Your task to perform on an android device: Add razer thresher to the cart on amazon, then select checkout. Image 0: 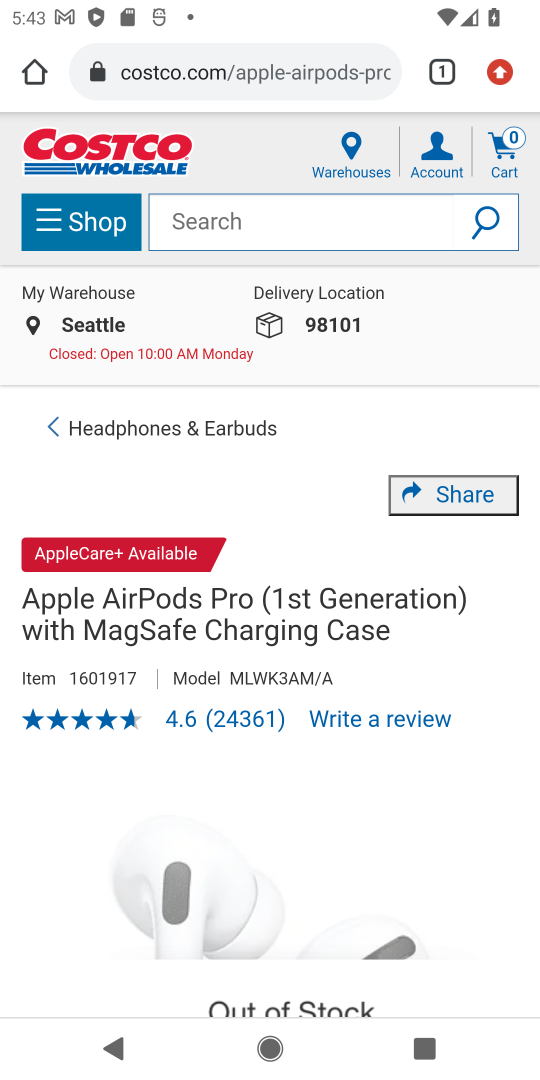
Step 0: press home button
Your task to perform on an android device: Add razer thresher to the cart on amazon, then select checkout. Image 1: 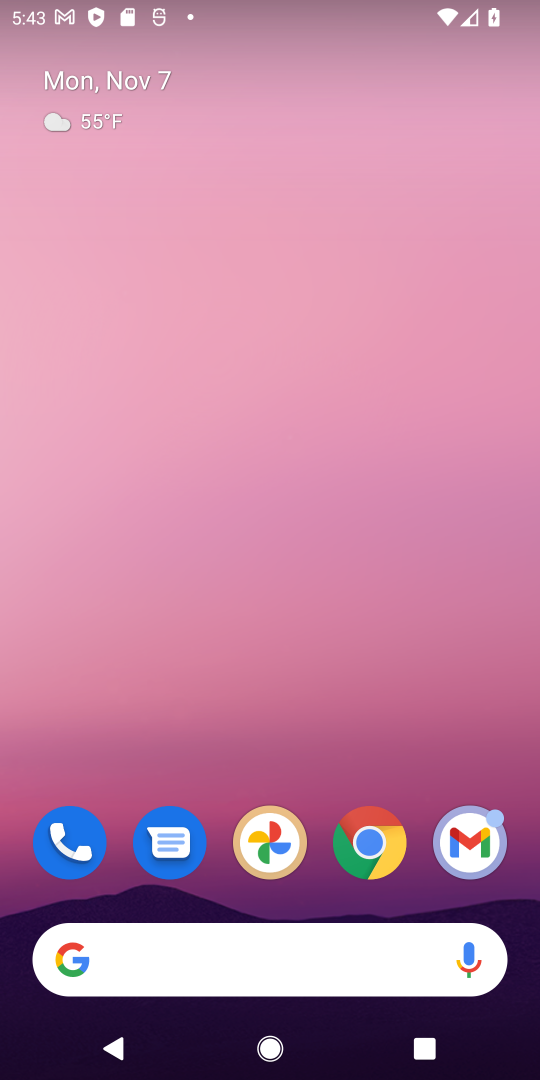
Step 1: click (373, 845)
Your task to perform on an android device: Add razer thresher to the cart on amazon, then select checkout. Image 2: 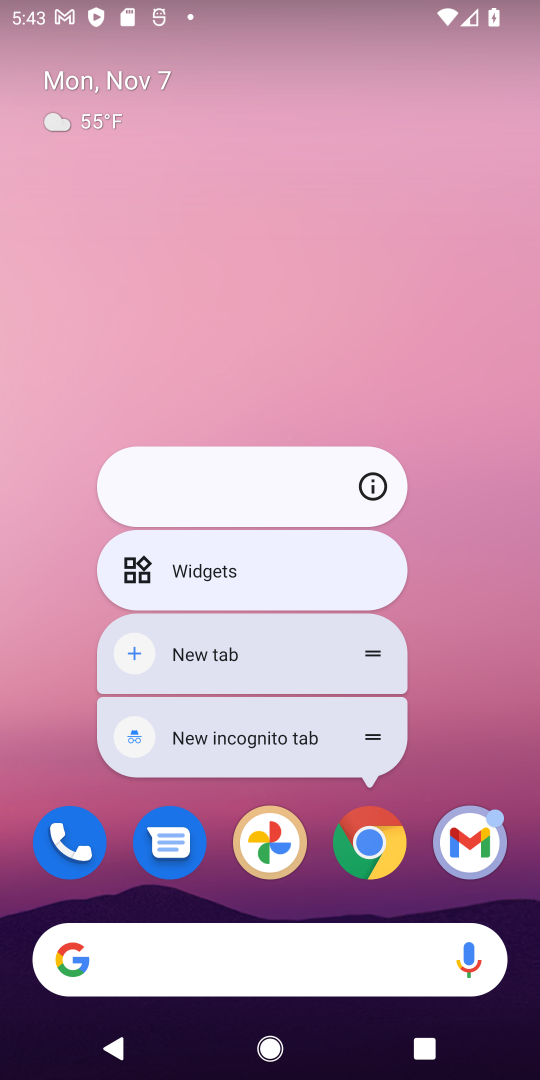
Step 2: click (373, 845)
Your task to perform on an android device: Add razer thresher to the cart on amazon, then select checkout. Image 3: 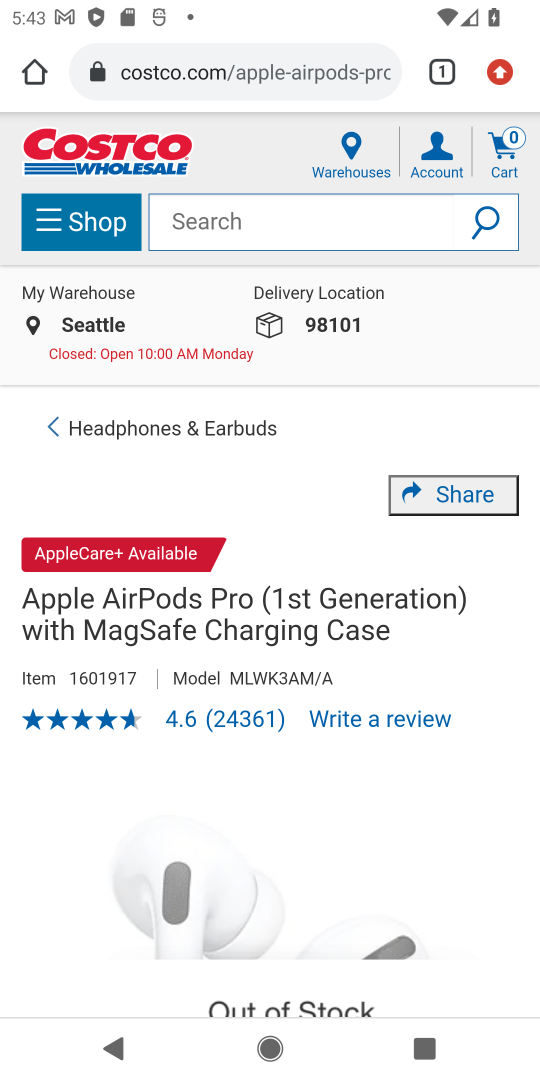
Step 3: click (272, 68)
Your task to perform on an android device: Add razer thresher to the cart on amazon, then select checkout. Image 4: 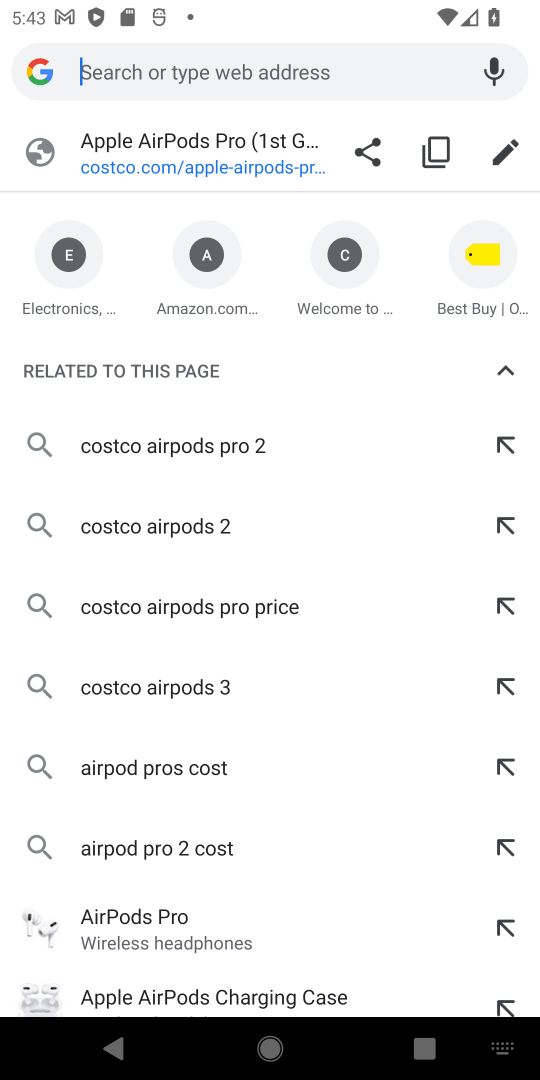
Step 4: click (199, 303)
Your task to perform on an android device: Add razer thresher to the cart on amazon, then select checkout. Image 5: 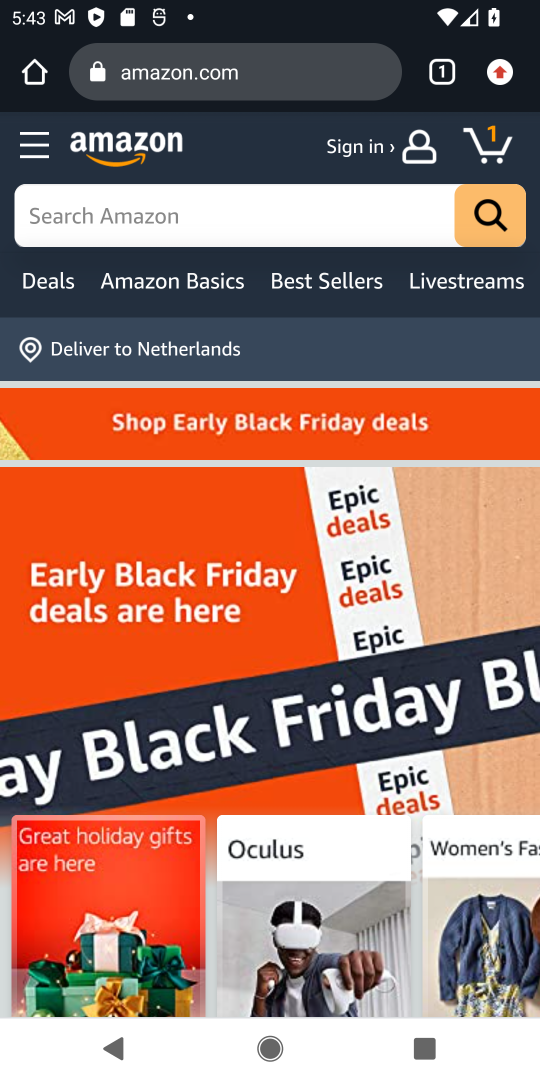
Step 5: click (216, 211)
Your task to perform on an android device: Add razer thresher to the cart on amazon, then select checkout. Image 6: 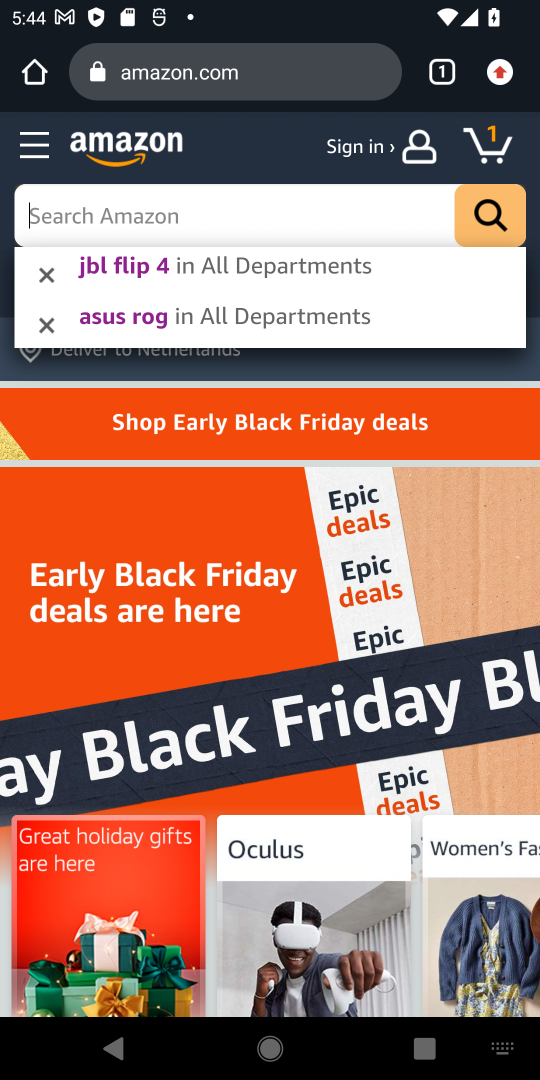
Step 6: type " razer thresher"
Your task to perform on an android device: Add razer thresher to the cart on amazon, then select checkout. Image 7: 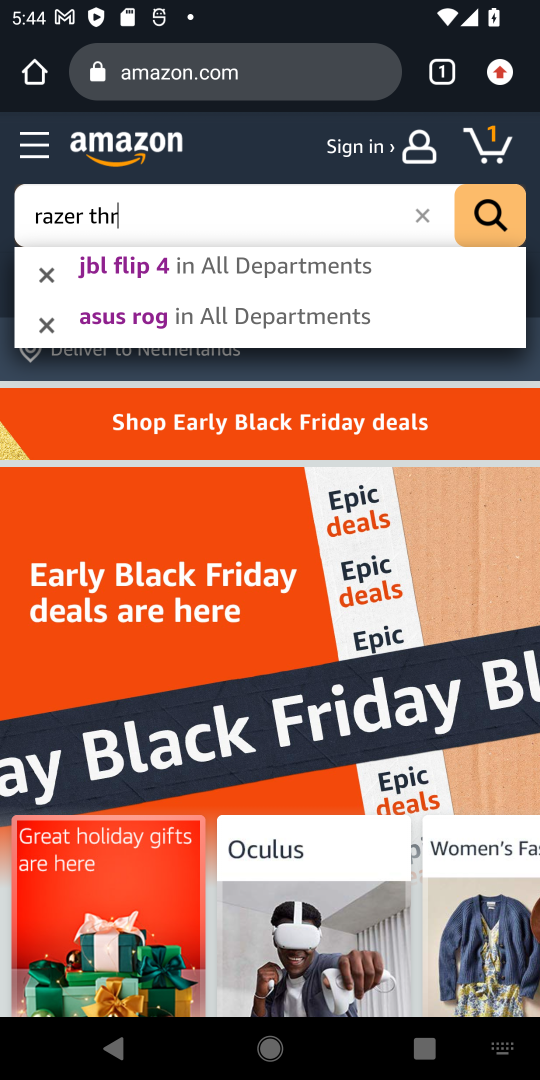
Step 7: press enter
Your task to perform on an android device: Add razer thresher to the cart on amazon, then select checkout. Image 8: 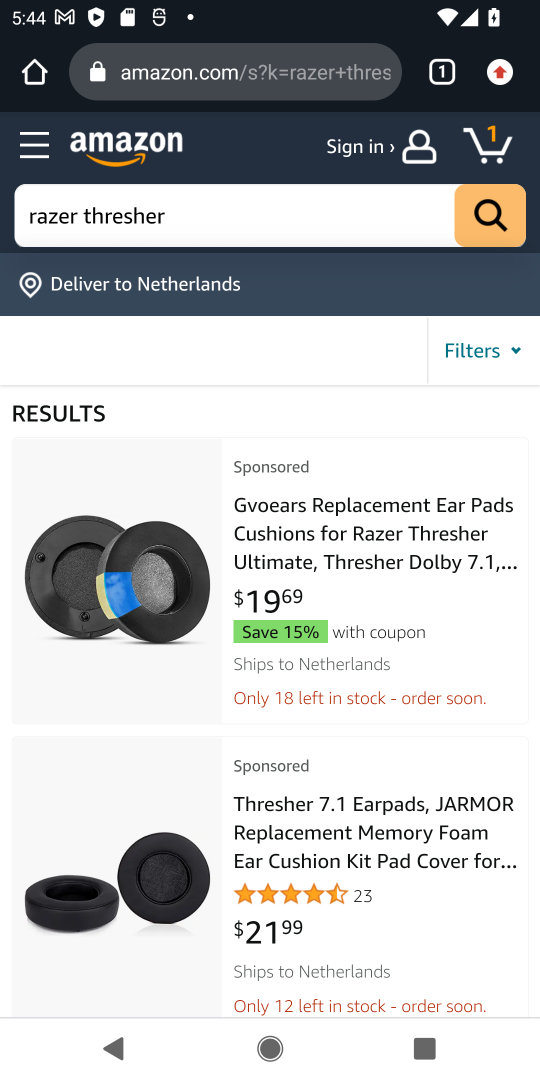
Step 8: drag from (351, 938) to (455, 300)
Your task to perform on an android device: Add razer thresher to the cart on amazon, then select checkout. Image 9: 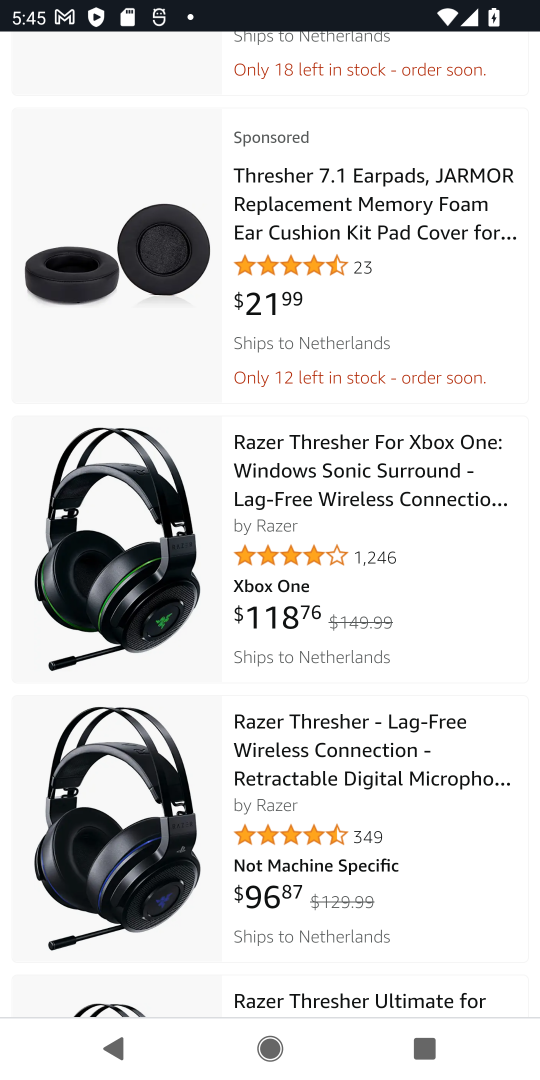
Step 9: click (371, 482)
Your task to perform on an android device: Add razer thresher to the cart on amazon, then select checkout. Image 10: 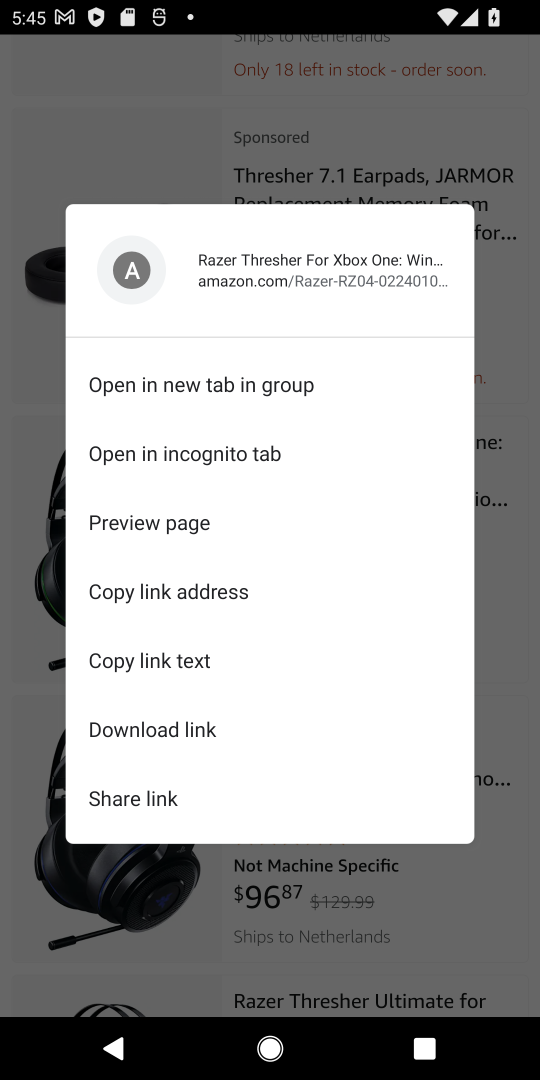
Step 10: click (493, 474)
Your task to perform on an android device: Add razer thresher to the cart on amazon, then select checkout. Image 11: 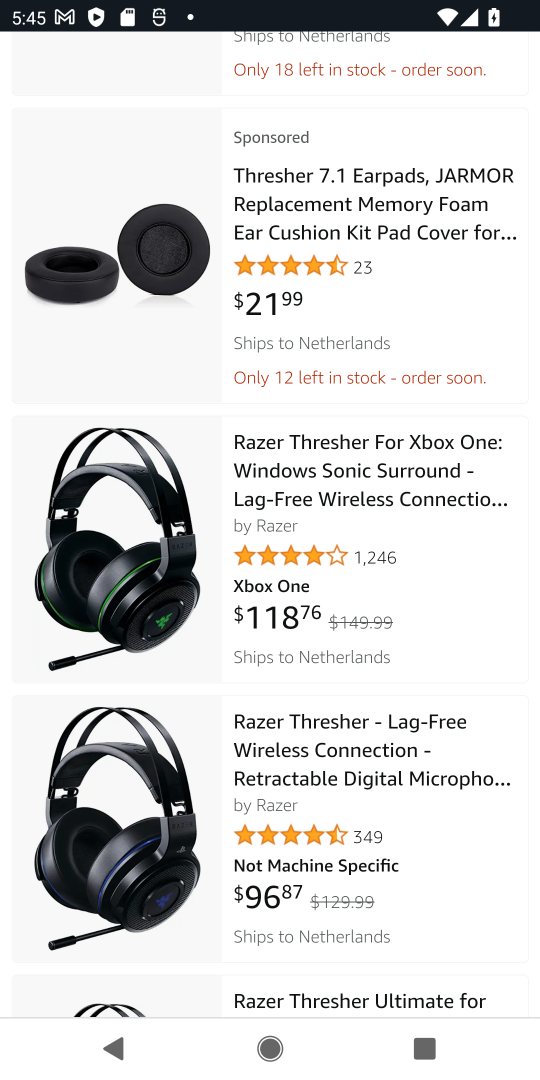
Step 11: click (316, 457)
Your task to perform on an android device: Add razer thresher to the cart on amazon, then select checkout. Image 12: 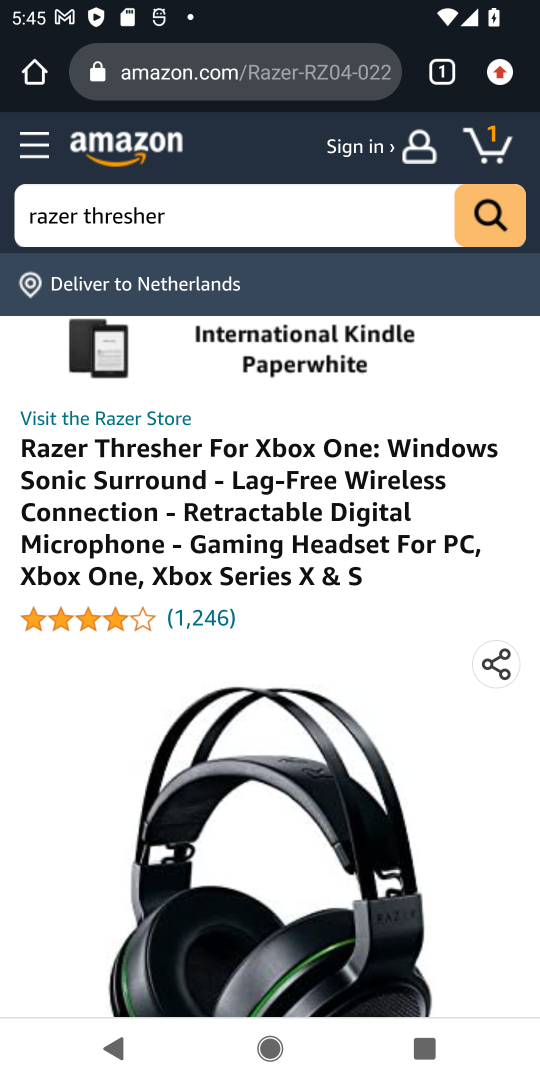
Step 12: drag from (90, 800) to (536, 105)
Your task to perform on an android device: Add razer thresher to the cart on amazon, then select checkout. Image 13: 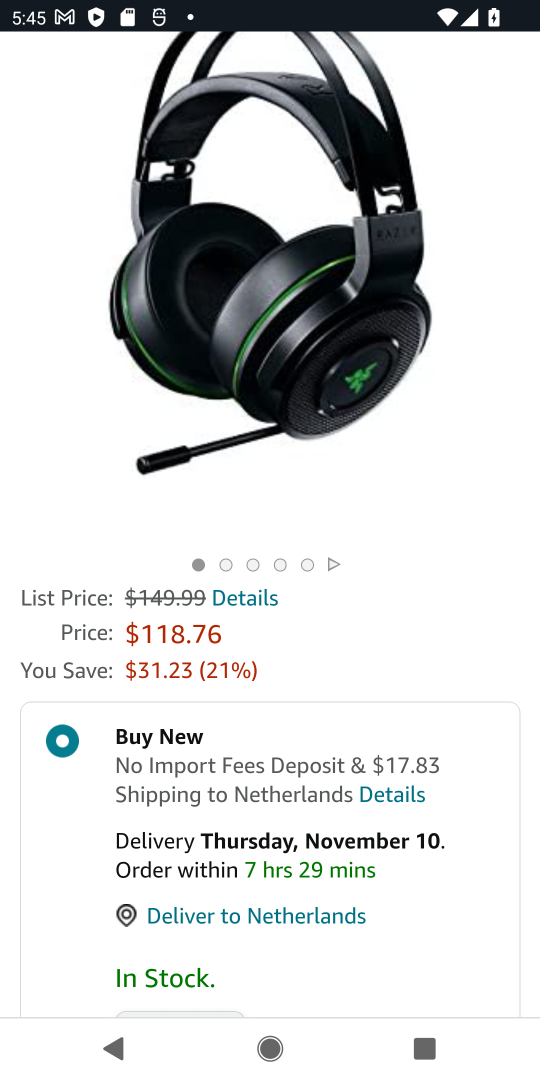
Step 13: drag from (312, 877) to (463, 202)
Your task to perform on an android device: Add razer thresher to the cart on amazon, then select checkout. Image 14: 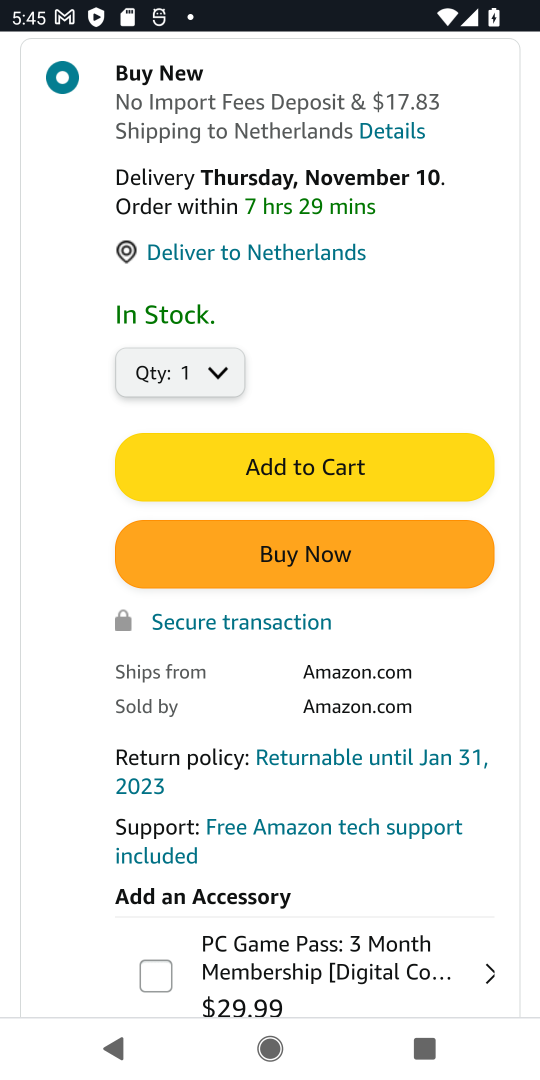
Step 14: click (349, 465)
Your task to perform on an android device: Add razer thresher to the cart on amazon, then select checkout. Image 15: 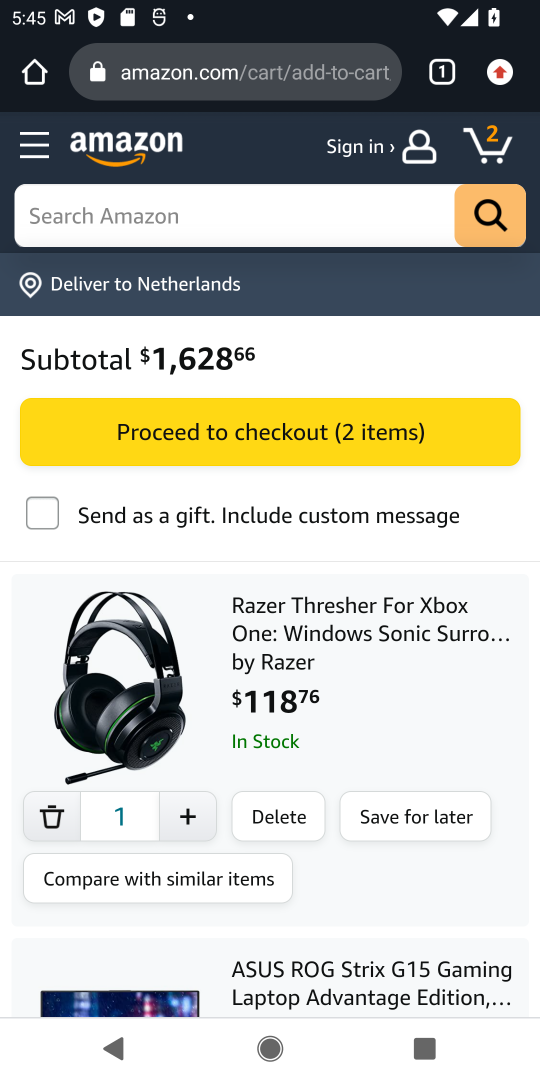
Step 15: click (486, 131)
Your task to perform on an android device: Add razer thresher to the cart on amazon, then select checkout. Image 16: 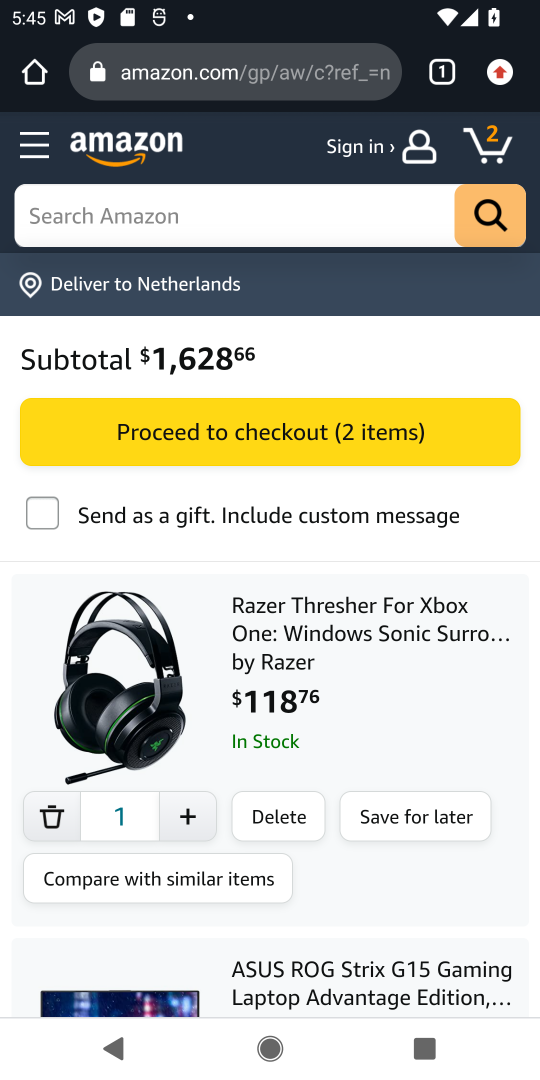
Step 16: drag from (278, 791) to (438, 314)
Your task to perform on an android device: Add razer thresher to the cart on amazon, then select checkout. Image 17: 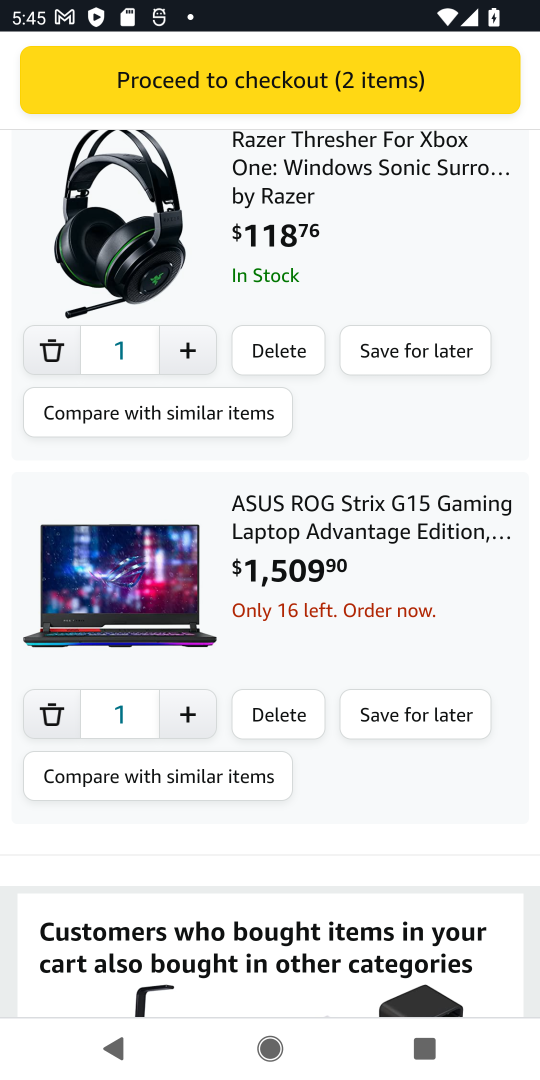
Step 17: click (270, 708)
Your task to perform on an android device: Add razer thresher to the cart on amazon, then select checkout. Image 18: 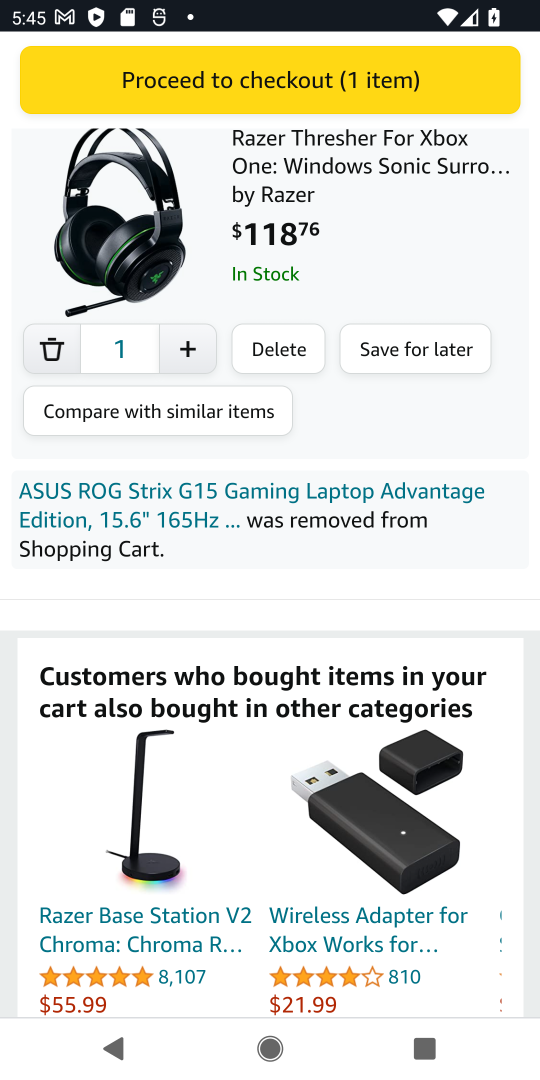
Step 18: drag from (405, 228) to (378, 649)
Your task to perform on an android device: Add razer thresher to the cart on amazon, then select checkout. Image 19: 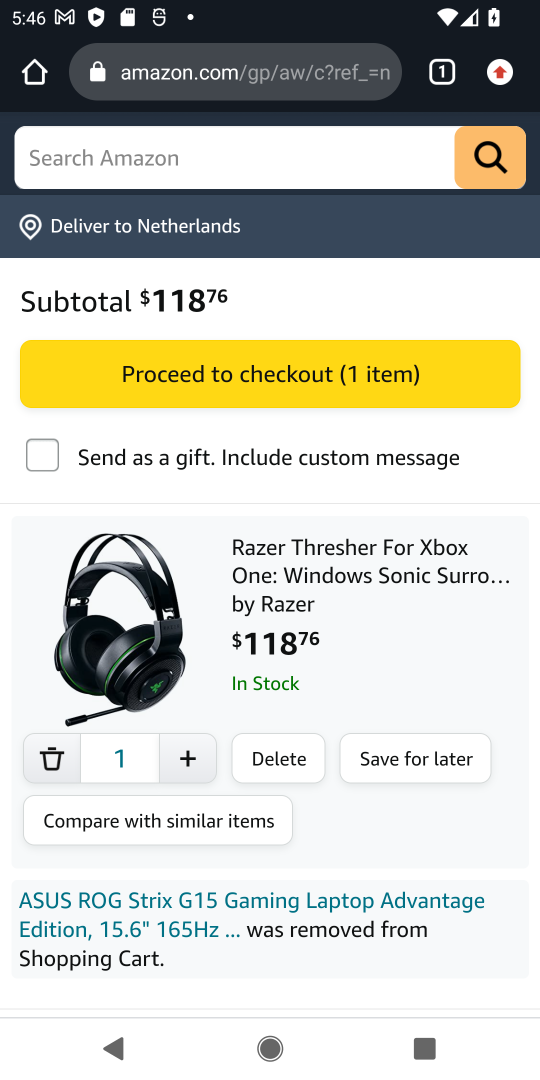
Step 19: click (261, 371)
Your task to perform on an android device: Add razer thresher to the cart on amazon, then select checkout. Image 20: 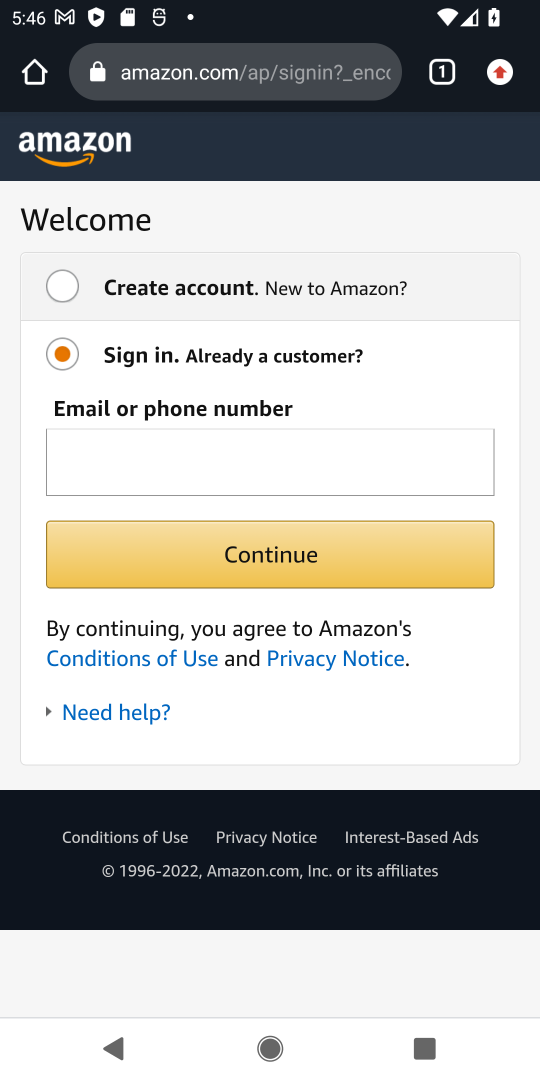
Step 20: task complete